Your task to perform on an android device: check the backup settings in the google photos Image 0: 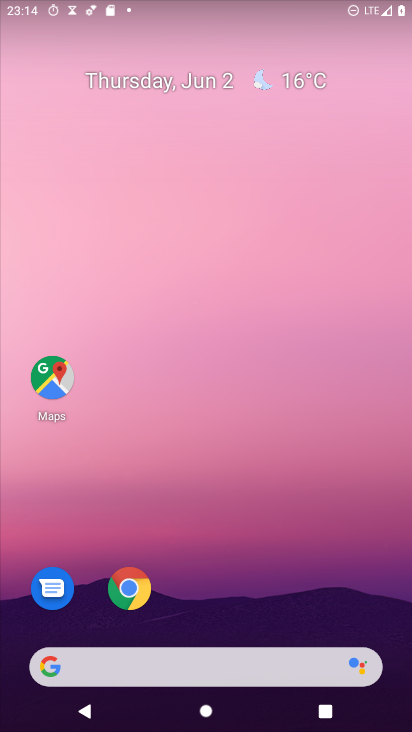
Step 0: drag from (232, 622) to (255, 88)
Your task to perform on an android device: check the backup settings in the google photos Image 1: 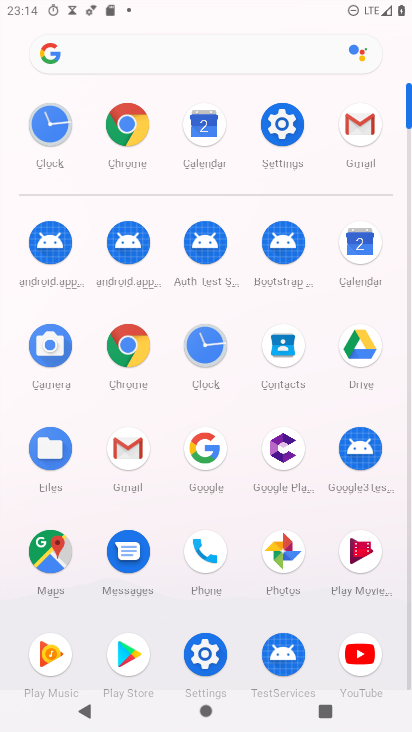
Step 1: click (286, 543)
Your task to perform on an android device: check the backup settings in the google photos Image 2: 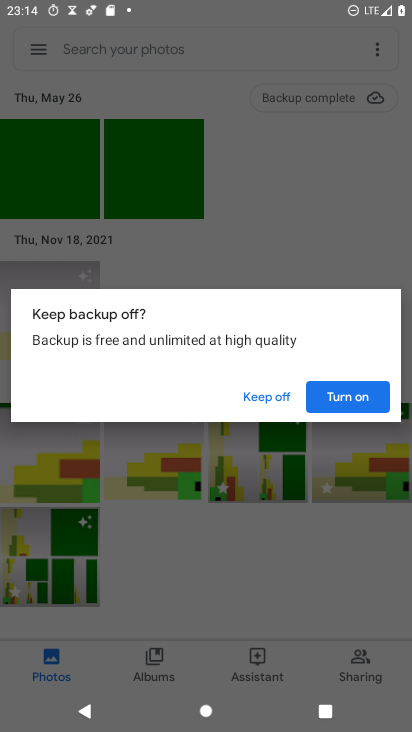
Step 2: click (261, 396)
Your task to perform on an android device: check the backup settings in the google photos Image 3: 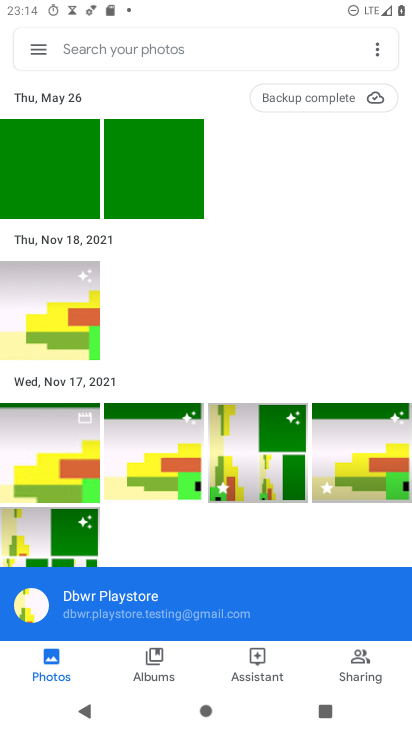
Step 3: click (37, 22)
Your task to perform on an android device: check the backup settings in the google photos Image 4: 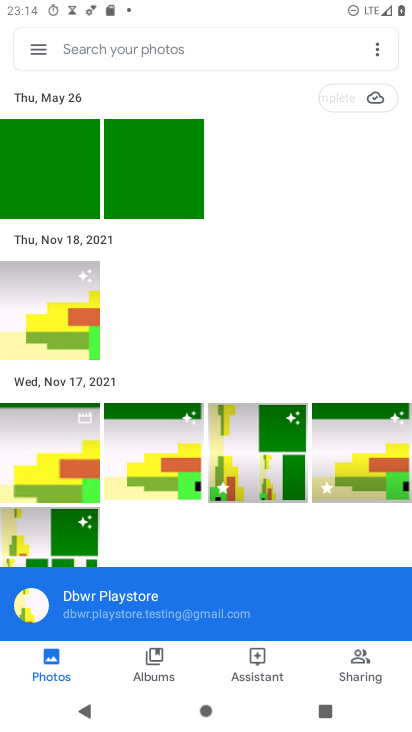
Step 4: click (36, 42)
Your task to perform on an android device: check the backup settings in the google photos Image 5: 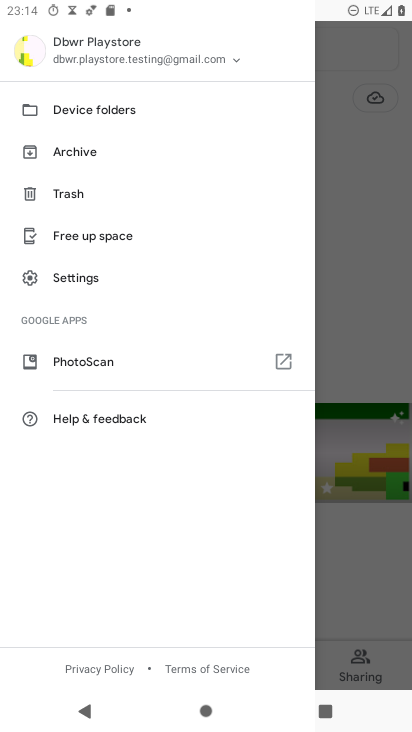
Step 5: click (64, 282)
Your task to perform on an android device: check the backup settings in the google photos Image 6: 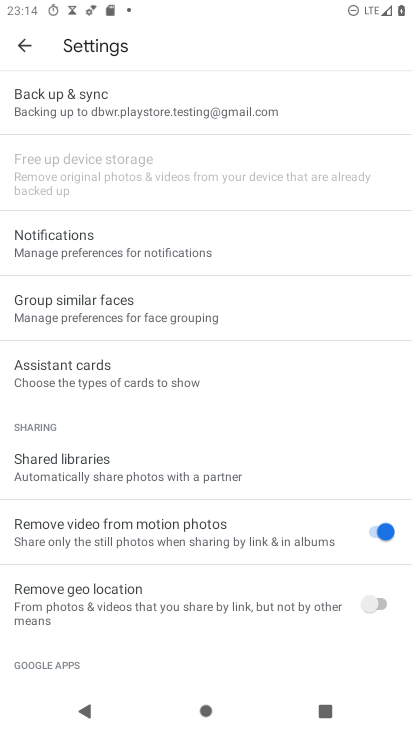
Step 6: click (121, 93)
Your task to perform on an android device: check the backup settings in the google photos Image 7: 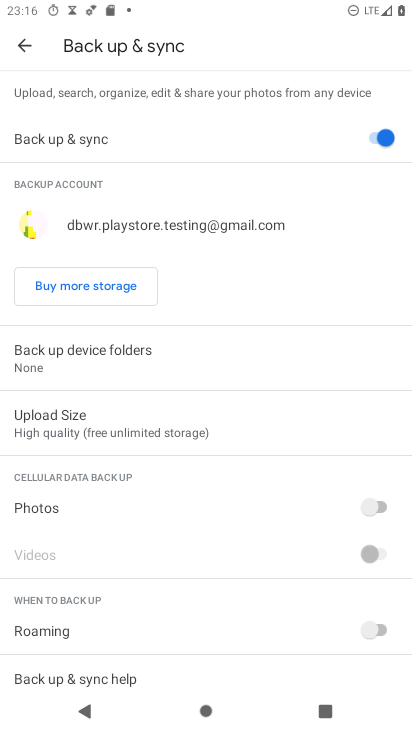
Step 7: task complete